Your task to perform on an android device: Open calendar and show me the second week of next month Image 0: 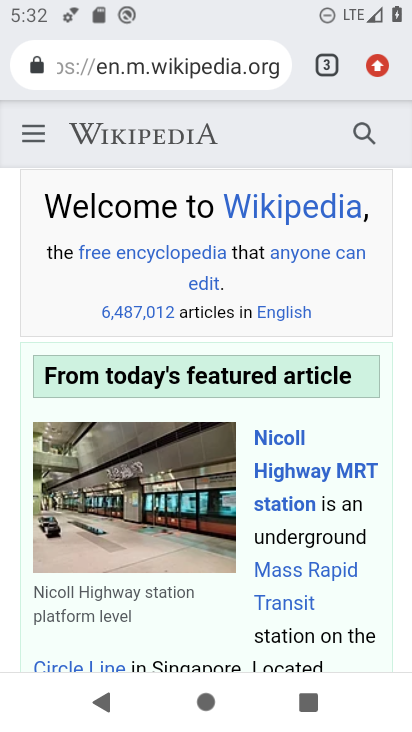
Step 0: press home button
Your task to perform on an android device: Open calendar and show me the second week of next month Image 1: 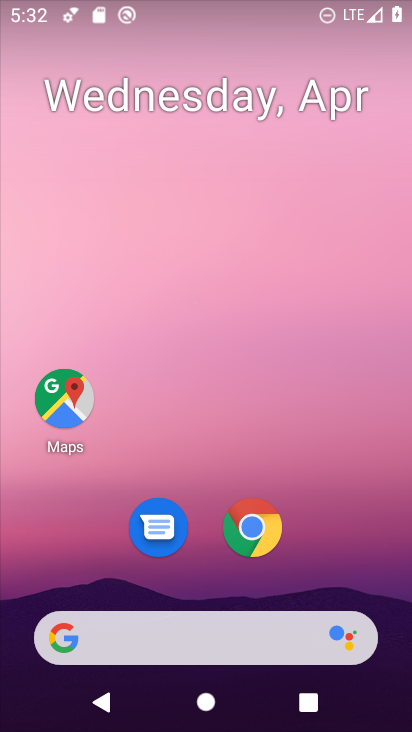
Step 1: drag from (359, 514) to (376, 66)
Your task to perform on an android device: Open calendar and show me the second week of next month Image 2: 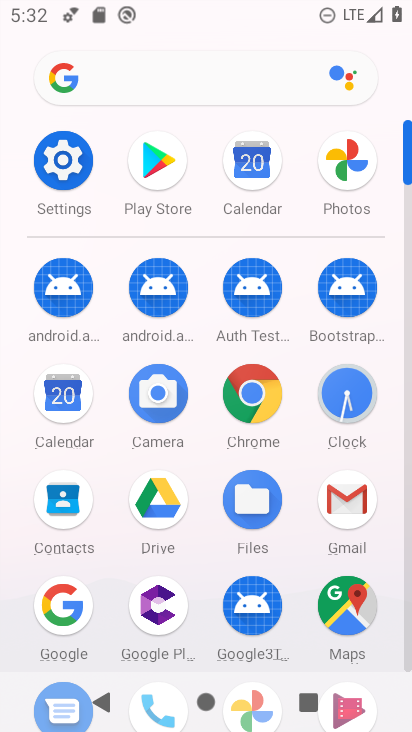
Step 2: click (54, 392)
Your task to perform on an android device: Open calendar and show me the second week of next month Image 3: 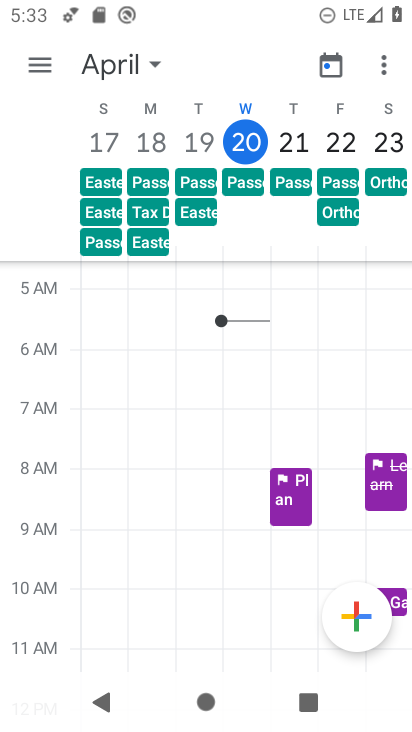
Step 3: click (156, 66)
Your task to perform on an android device: Open calendar and show me the second week of next month Image 4: 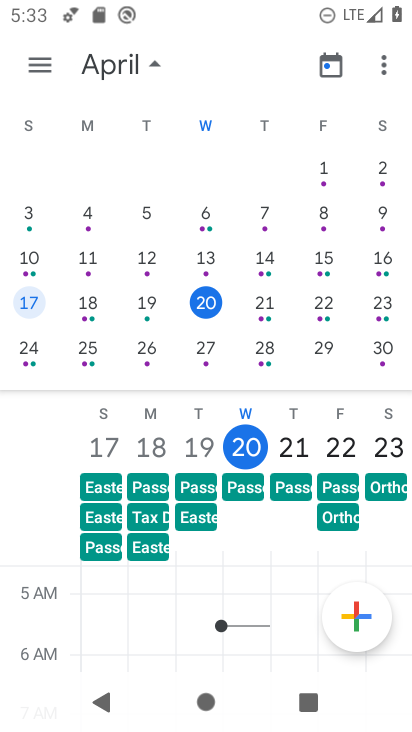
Step 4: task complete